Your task to perform on an android device: turn off notifications settings in the gmail app Image 0: 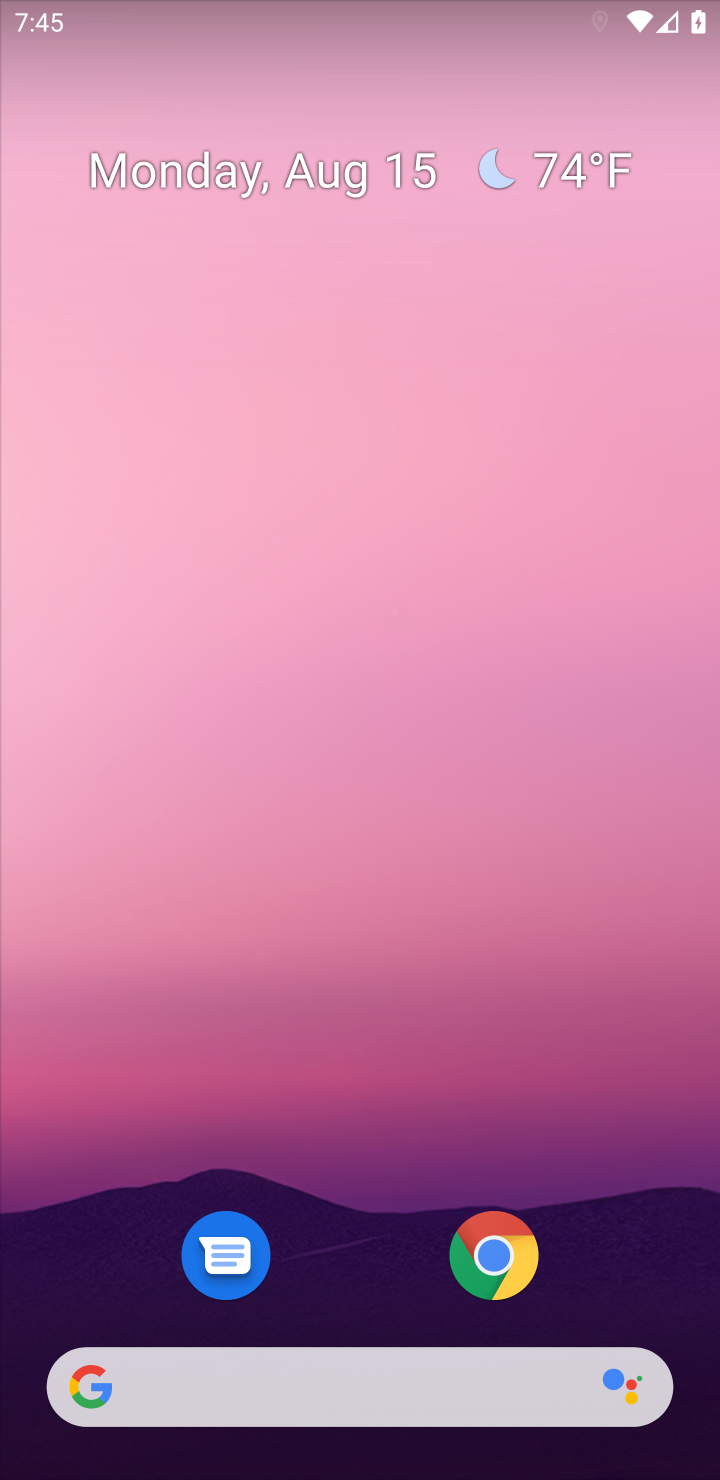
Step 0: press home button
Your task to perform on an android device: turn off notifications settings in the gmail app Image 1: 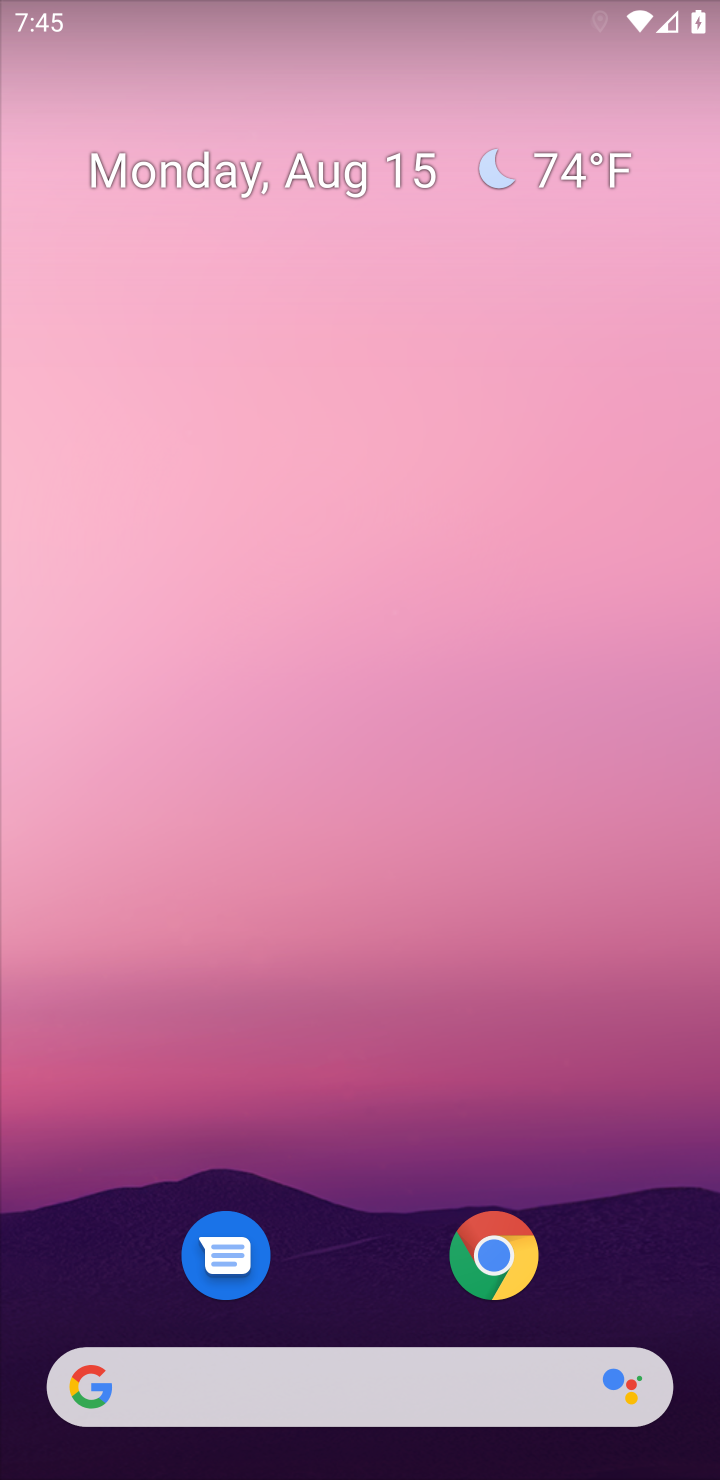
Step 1: drag from (367, 1305) to (410, 233)
Your task to perform on an android device: turn off notifications settings in the gmail app Image 2: 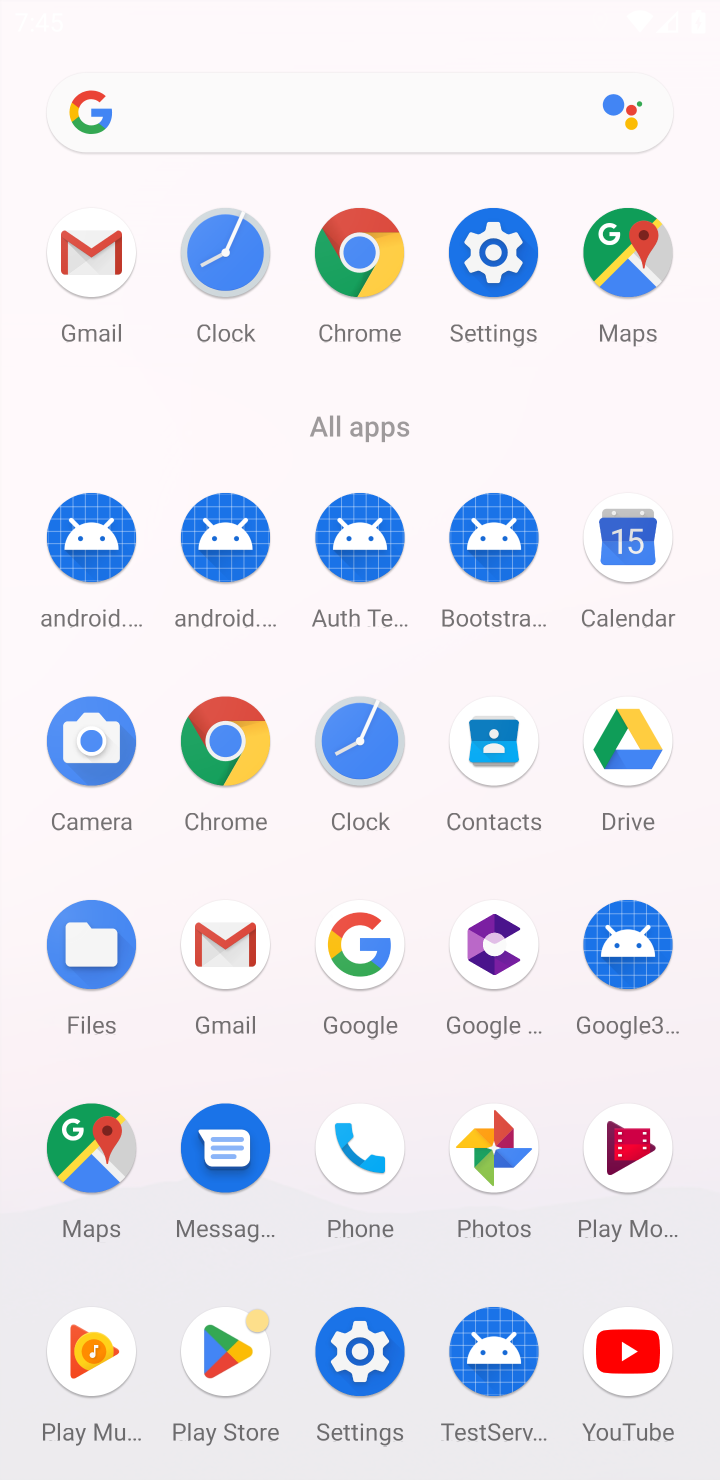
Step 2: click (223, 933)
Your task to perform on an android device: turn off notifications settings in the gmail app Image 3: 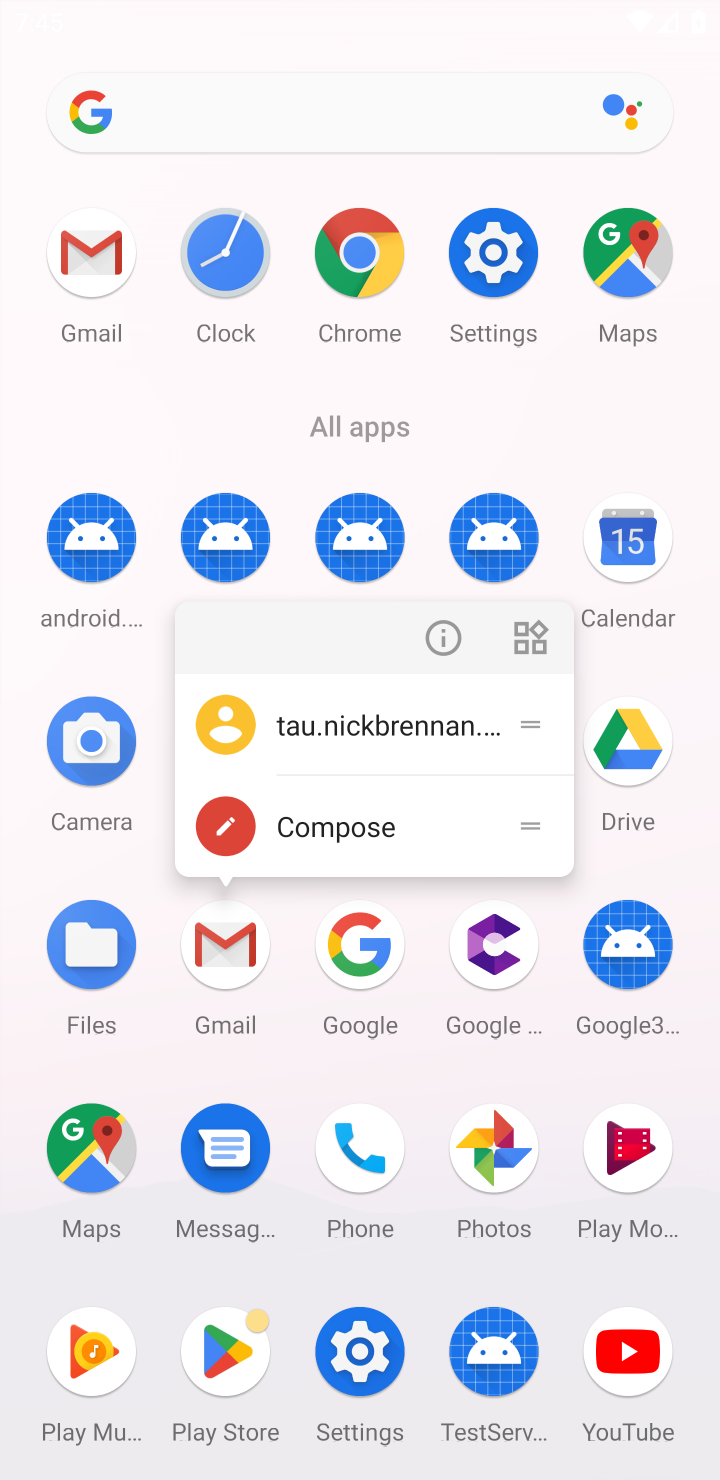
Step 3: click (223, 933)
Your task to perform on an android device: turn off notifications settings in the gmail app Image 4: 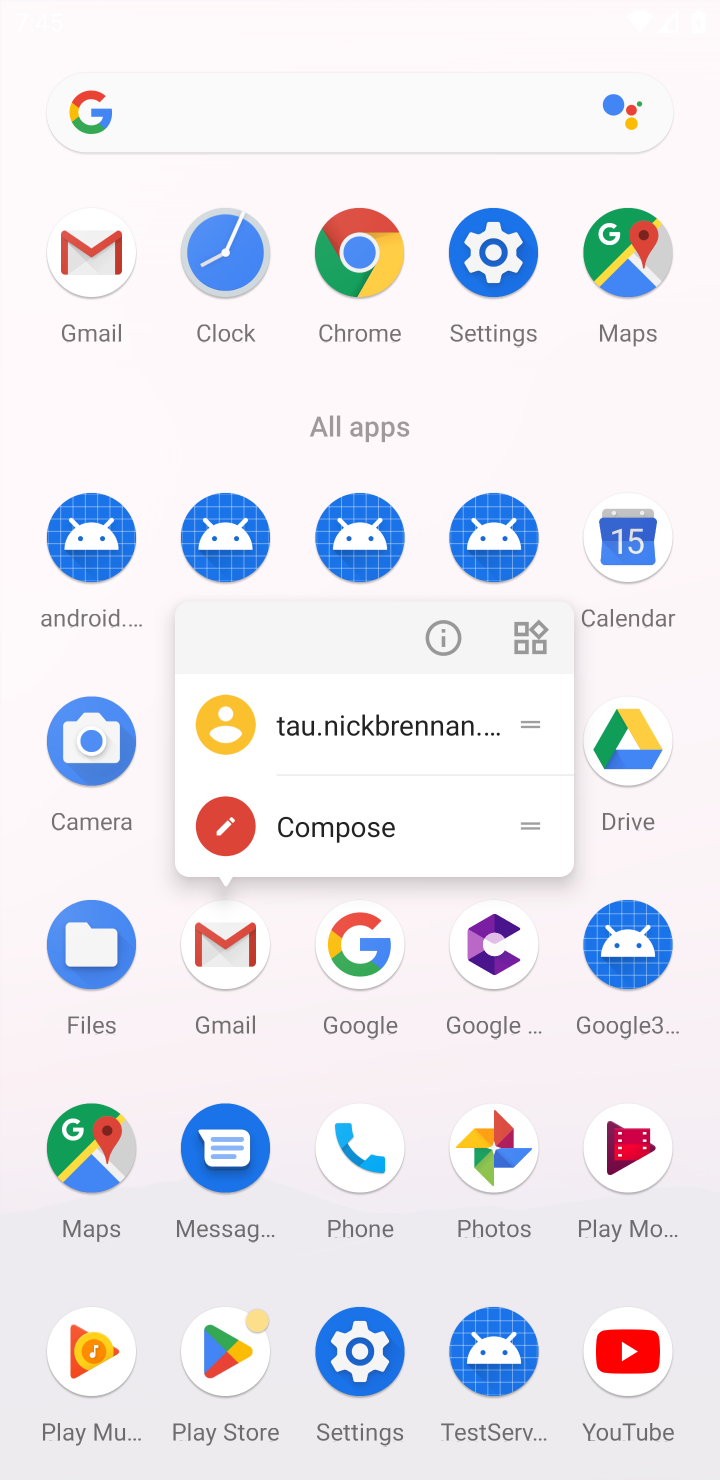
Step 4: click (223, 933)
Your task to perform on an android device: turn off notifications settings in the gmail app Image 5: 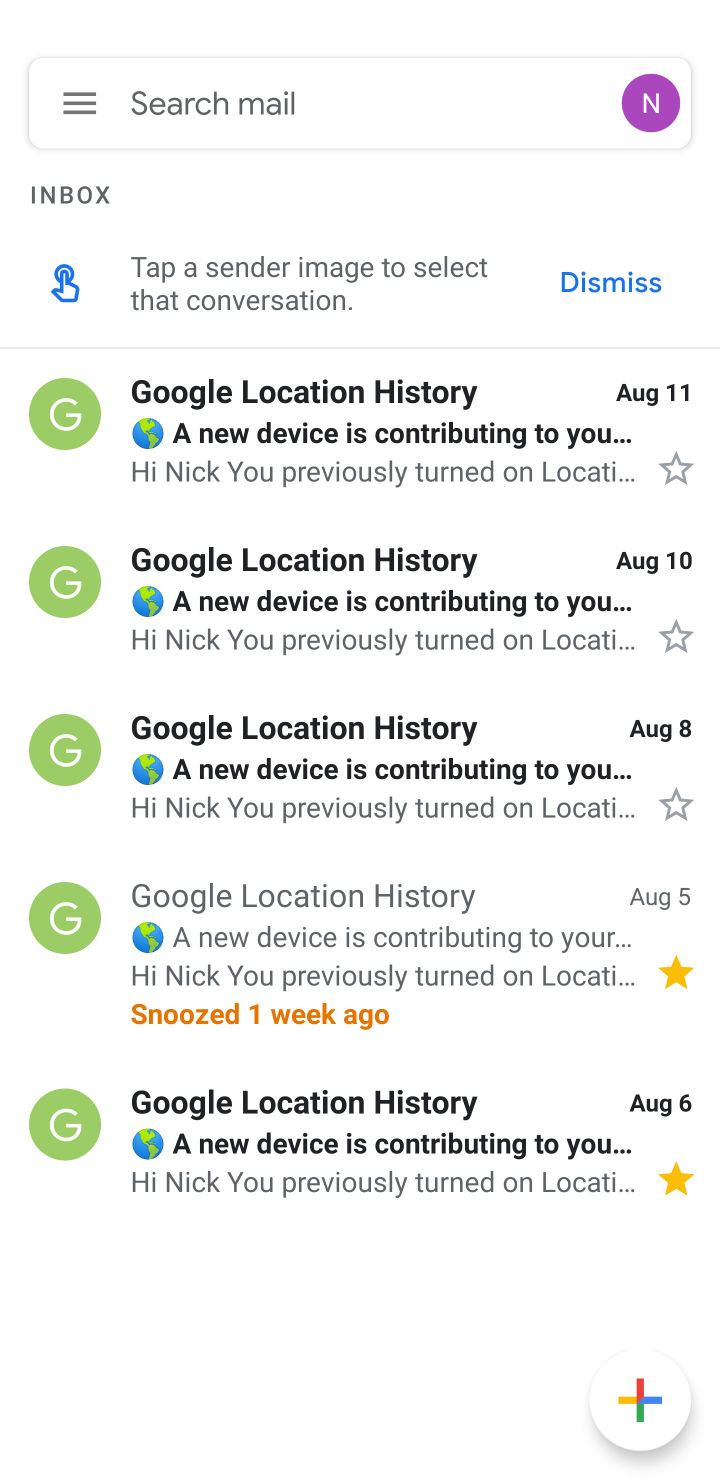
Step 5: click (75, 106)
Your task to perform on an android device: turn off notifications settings in the gmail app Image 6: 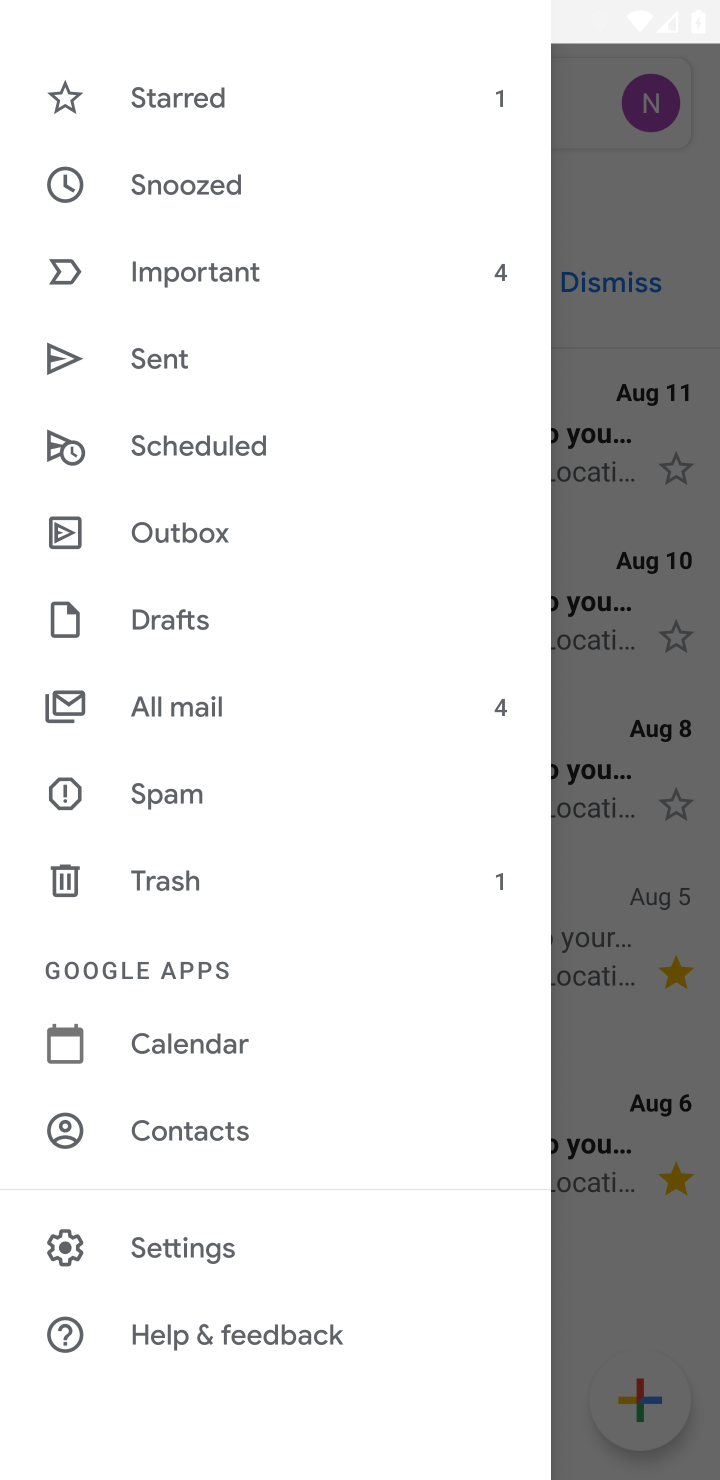
Step 6: click (248, 1250)
Your task to perform on an android device: turn off notifications settings in the gmail app Image 7: 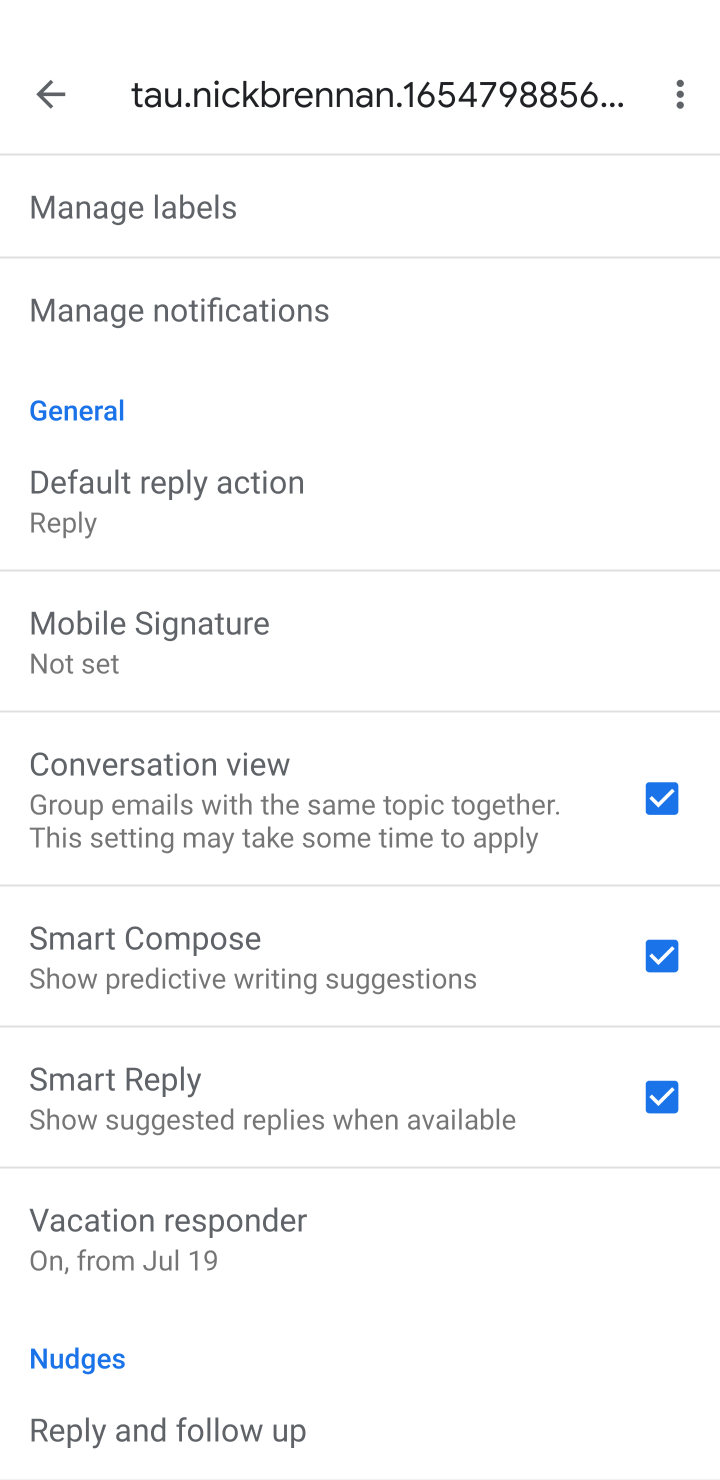
Step 7: click (58, 93)
Your task to perform on an android device: turn off notifications settings in the gmail app Image 8: 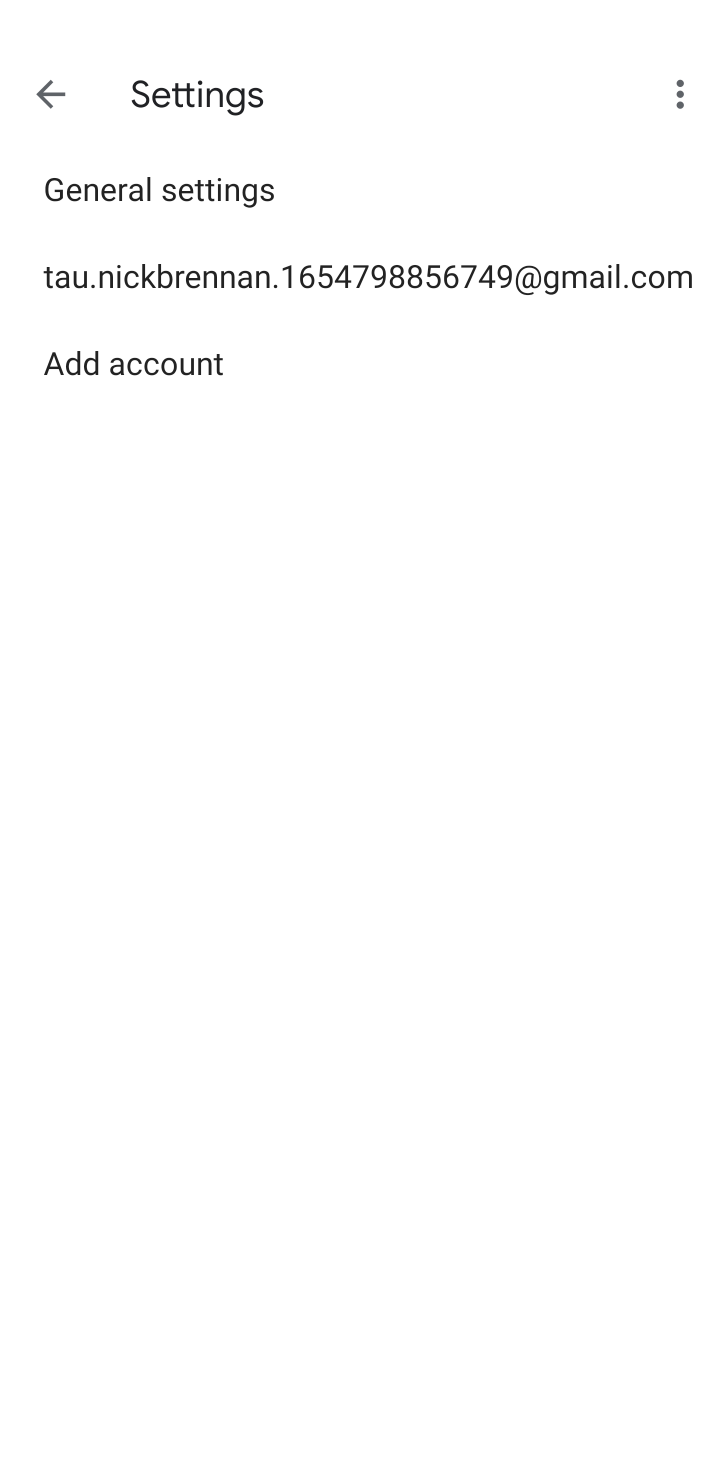
Step 8: click (243, 191)
Your task to perform on an android device: turn off notifications settings in the gmail app Image 9: 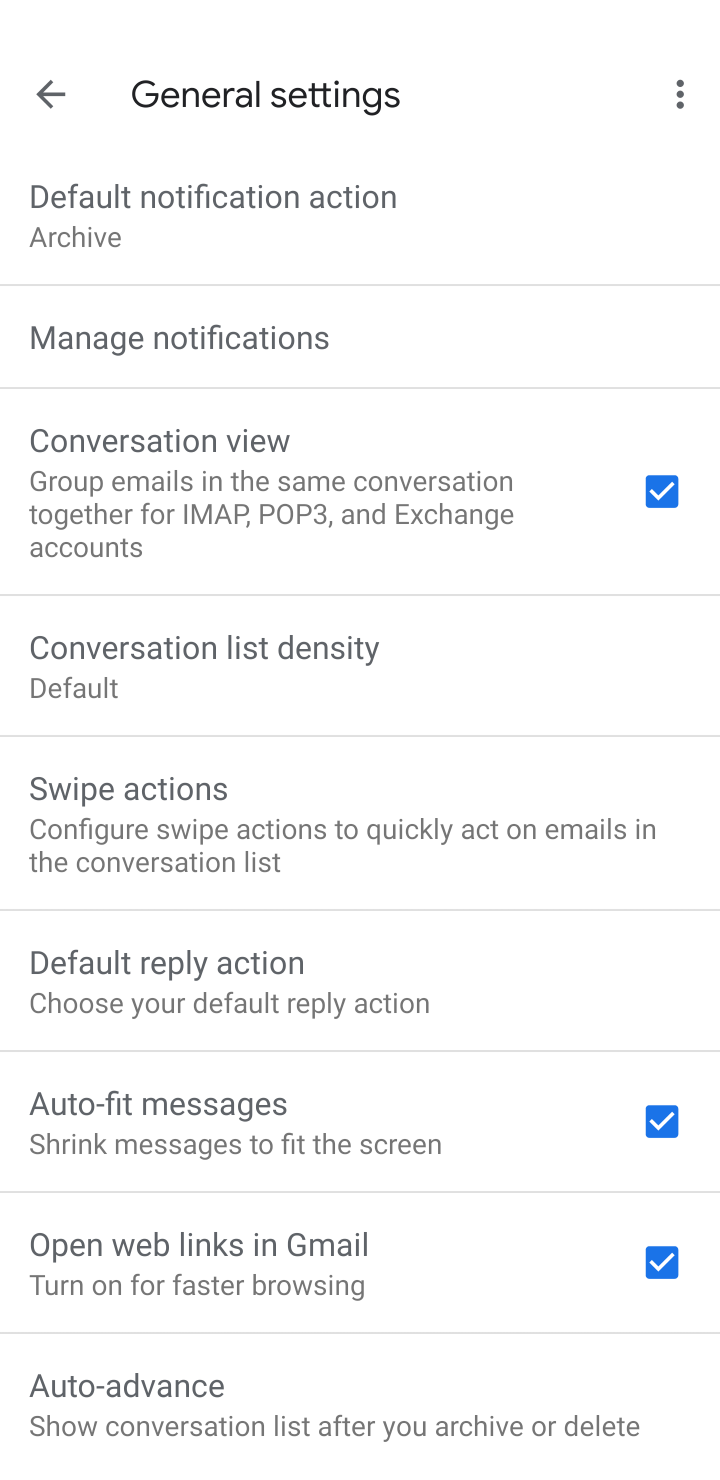
Step 9: click (348, 344)
Your task to perform on an android device: turn off notifications settings in the gmail app Image 10: 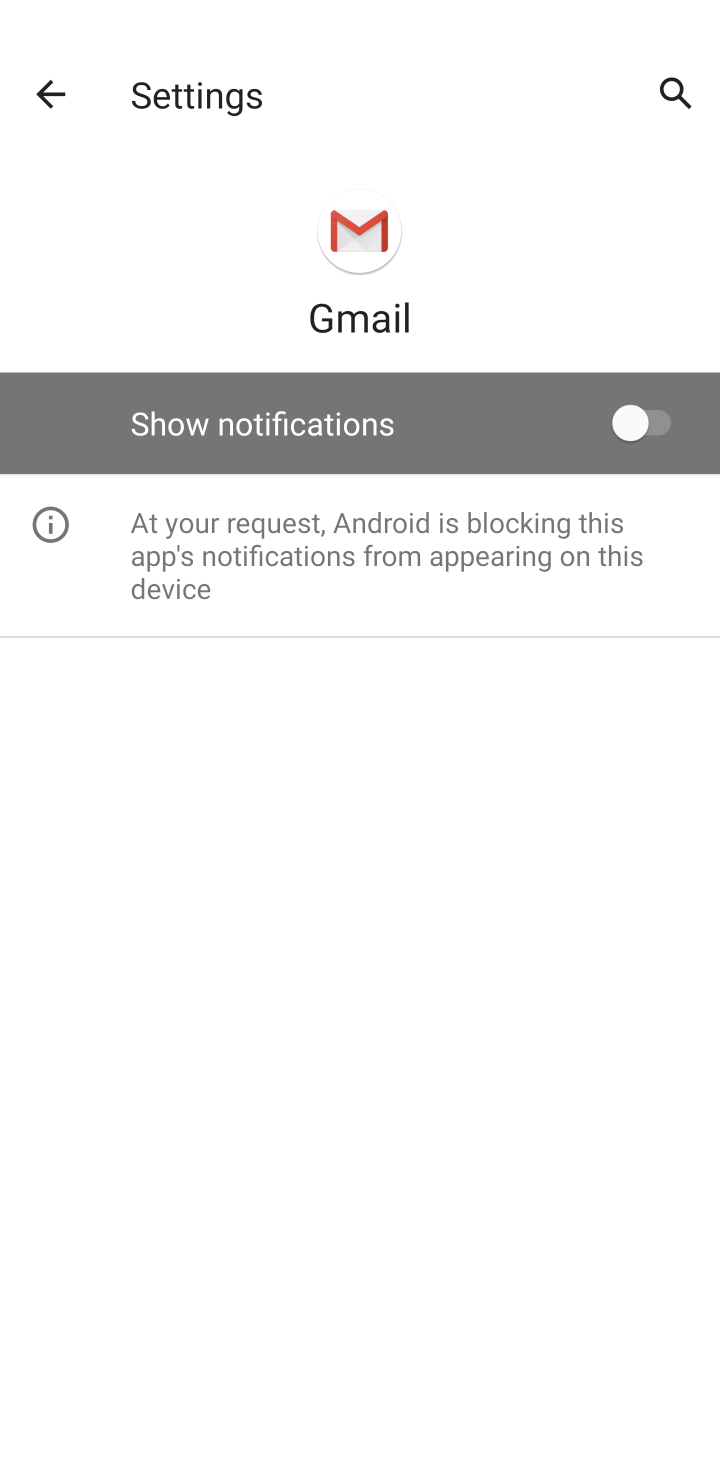
Step 10: task complete